Your task to perform on an android device: turn off priority inbox in the gmail app Image 0: 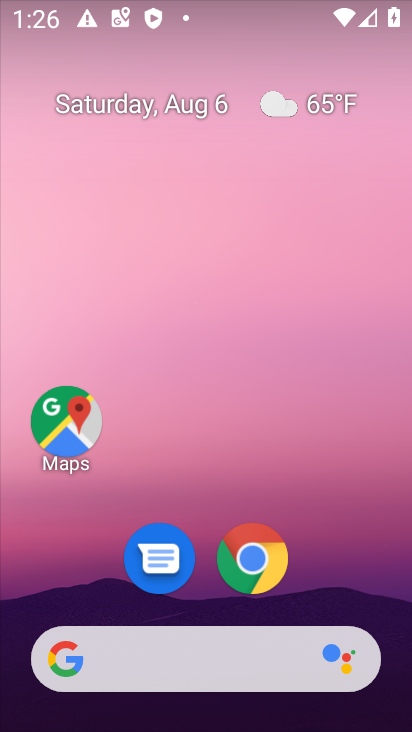
Step 0: drag from (170, 683) to (78, 11)
Your task to perform on an android device: turn off priority inbox in the gmail app Image 1: 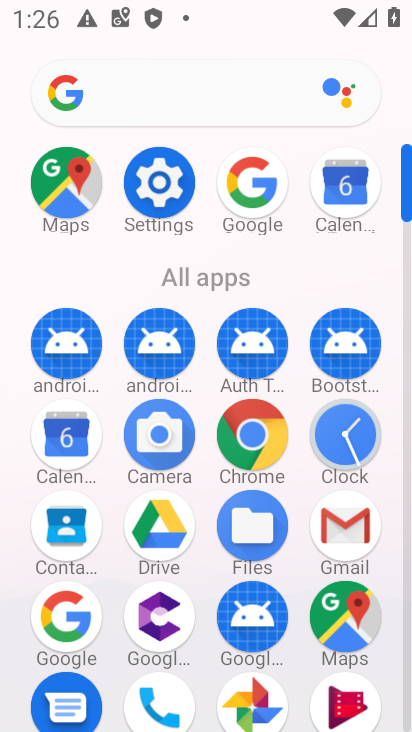
Step 1: click (350, 529)
Your task to perform on an android device: turn off priority inbox in the gmail app Image 2: 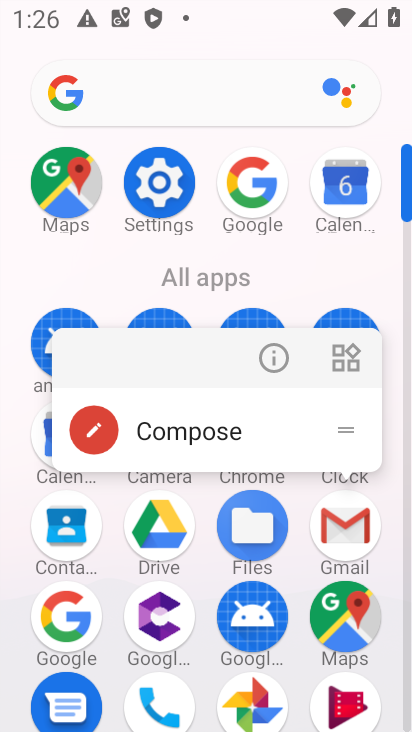
Step 2: click (348, 541)
Your task to perform on an android device: turn off priority inbox in the gmail app Image 3: 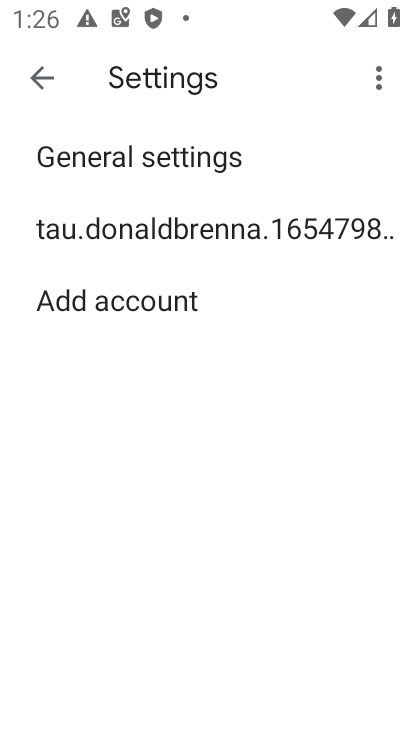
Step 3: click (177, 220)
Your task to perform on an android device: turn off priority inbox in the gmail app Image 4: 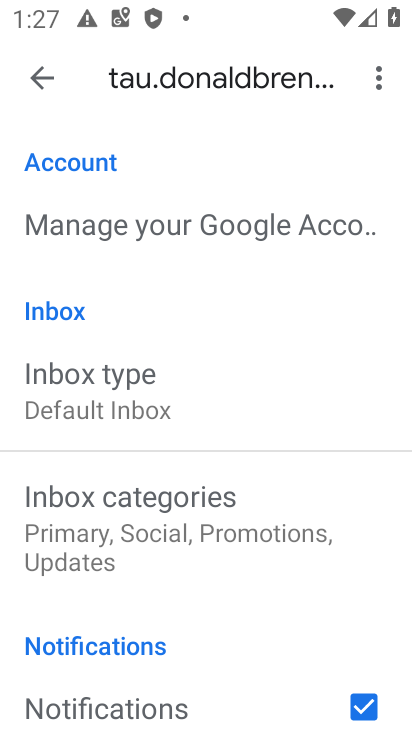
Step 4: drag from (152, 645) to (139, 486)
Your task to perform on an android device: turn off priority inbox in the gmail app Image 5: 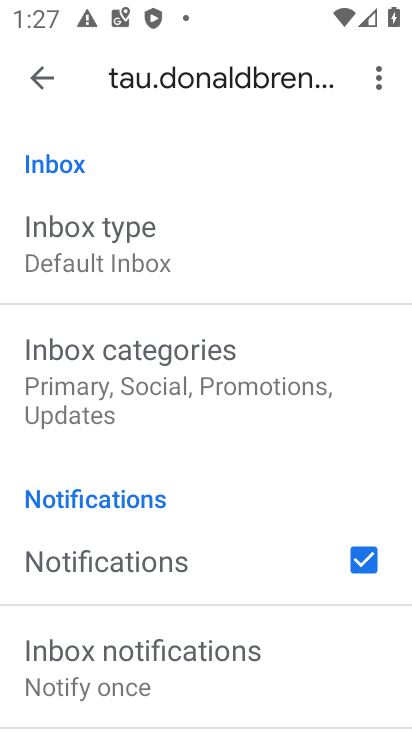
Step 5: click (122, 271)
Your task to perform on an android device: turn off priority inbox in the gmail app Image 6: 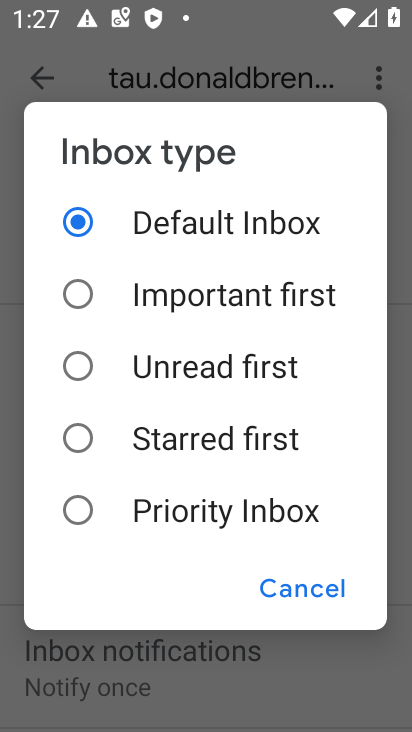
Step 6: click (171, 248)
Your task to perform on an android device: turn off priority inbox in the gmail app Image 7: 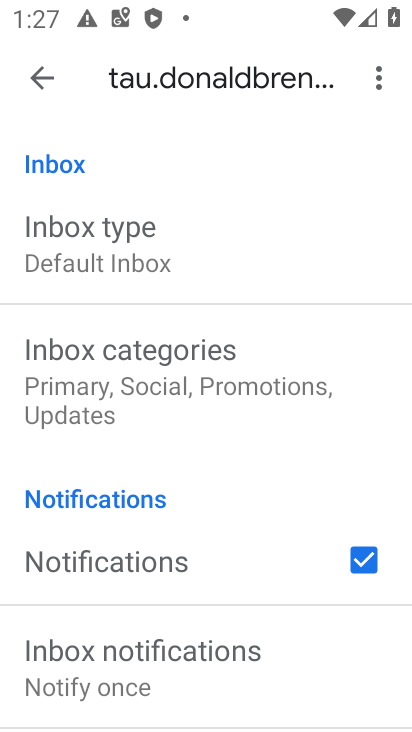
Step 7: task complete